Your task to perform on an android device: Go to location settings Image 0: 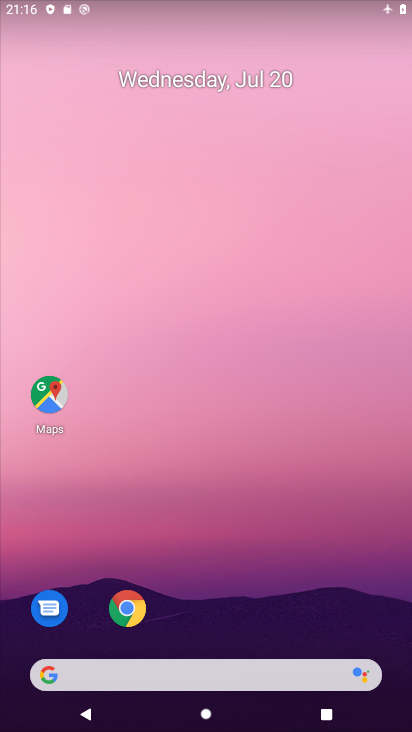
Step 0: drag from (250, 629) to (156, 66)
Your task to perform on an android device: Go to location settings Image 1: 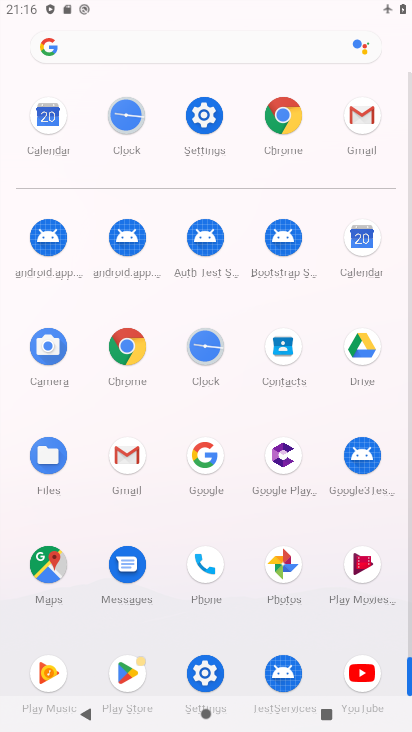
Step 1: click (194, 113)
Your task to perform on an android device: Go to location settings Image 2: 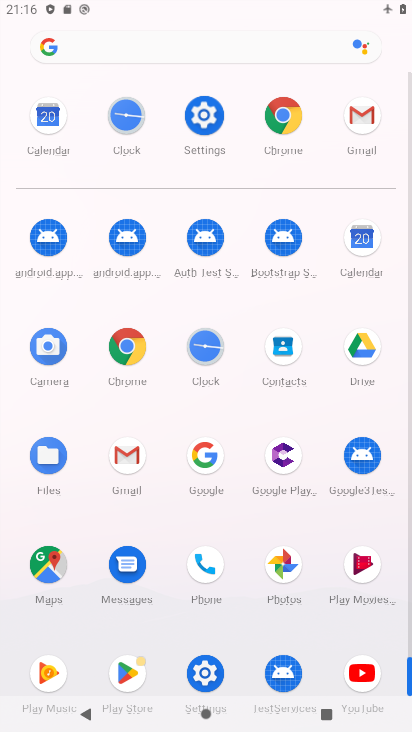
Step 2: click (200, 117)
Your task to perform on an android device: Go to location settings Image 3: 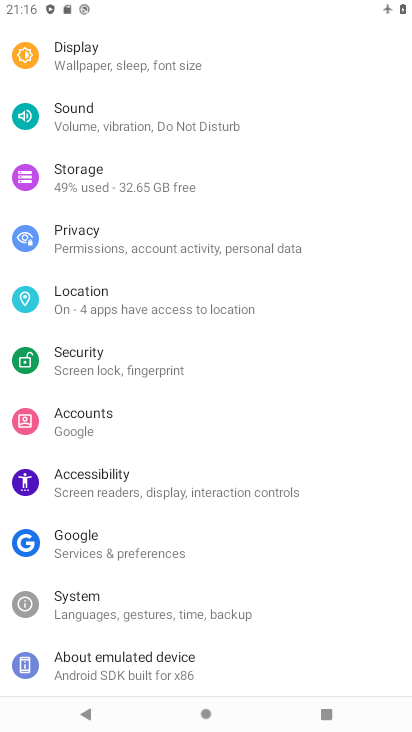
Step 3: click (88, 308)
Your task to perform on an android device: Go to location settings Image 4: 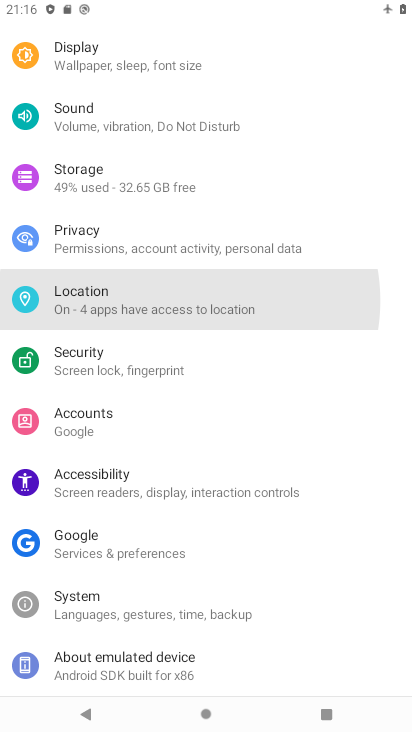
Step 4: click (94, 301)
Your task to perform on an android device: Go to location settings Image 5: 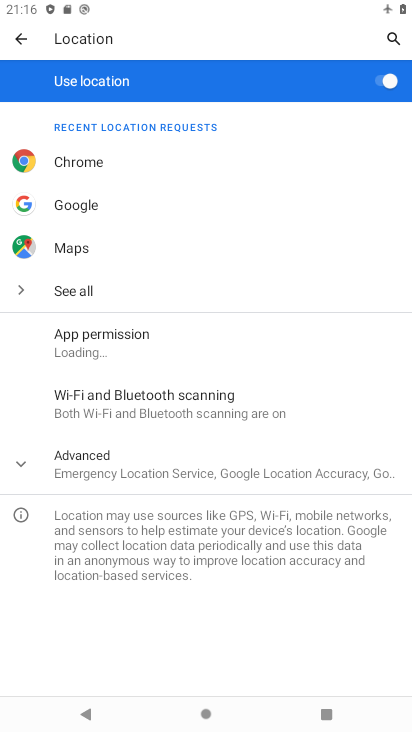
Step 5: task complete